Your task to perform on an android device: Open Android settings Image 0: 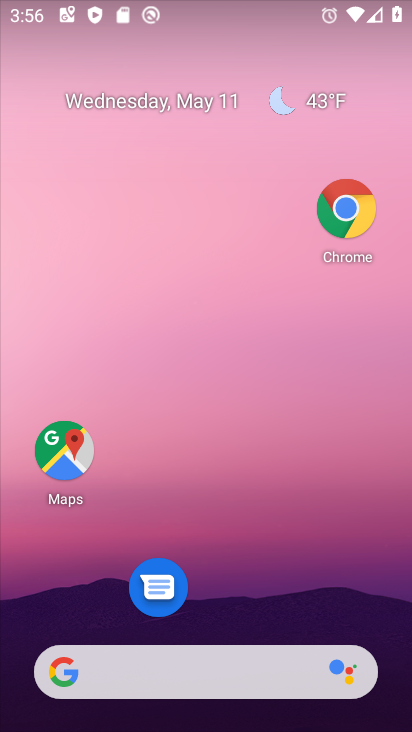
Step 0: drag from (265, 183) to (238, 81)
Your task to perform on an android device: Open Android settings Image 1: 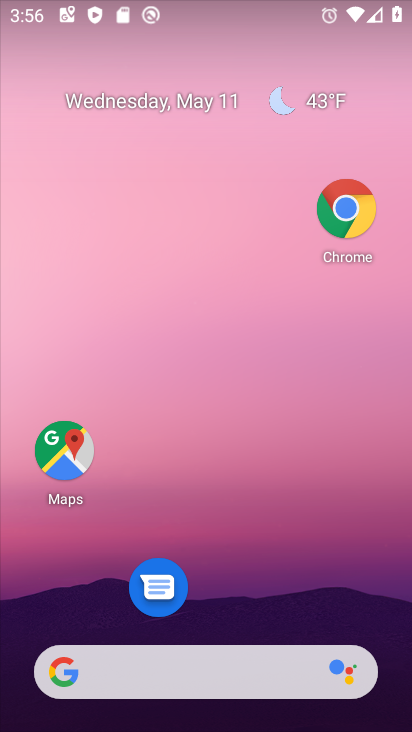
Step 1: drag from (233, 640) to (165, 192)
Your task to perform on an android device: Open Android settings Image 2: 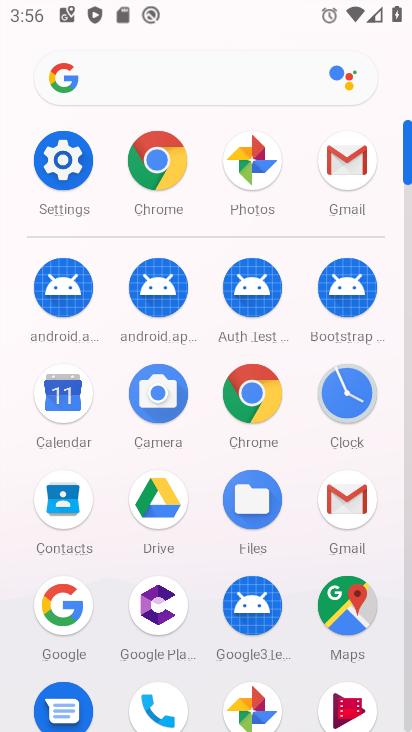
Step 2: click (65, 177)
Your task to perform on an android device: Open Android settings Image 3: 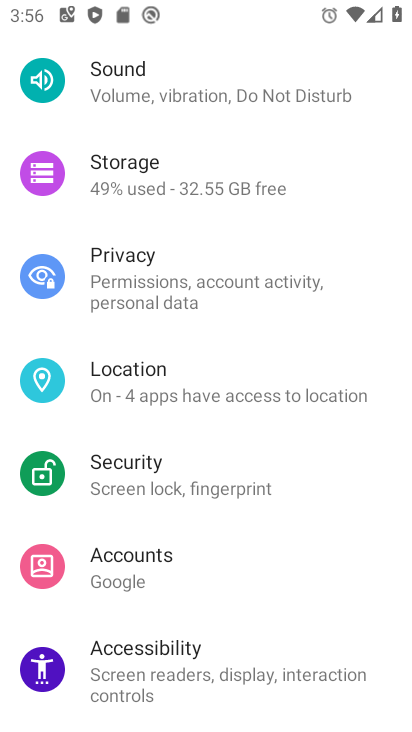
Step 3: task complete